Your task to perform on an android device: set the stopwatch Image 0: 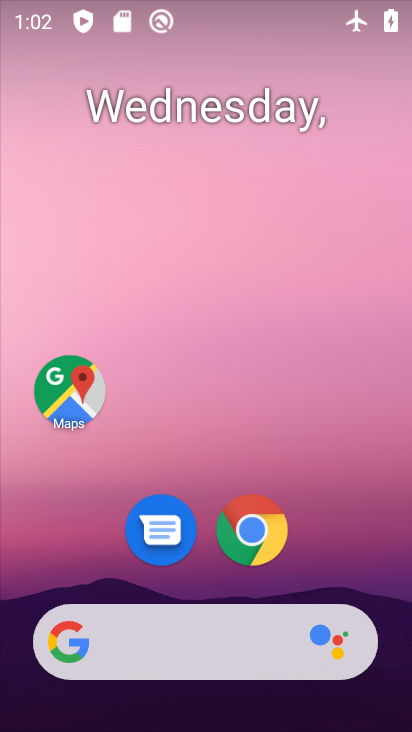
Step 0: drag from (193, 388) to (284, 74)
Your task to perform on an android device: set the stopwatch Image 1: 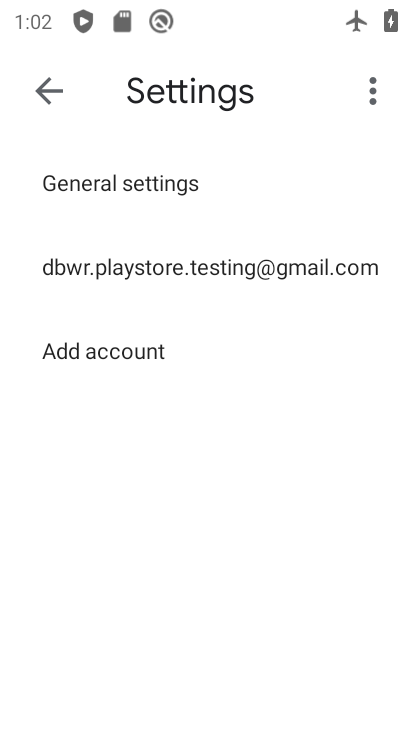
Step 1: drag from (240, 491) to (291, 173)
Your task to perform on an android device: set the stopwatch Image 2: 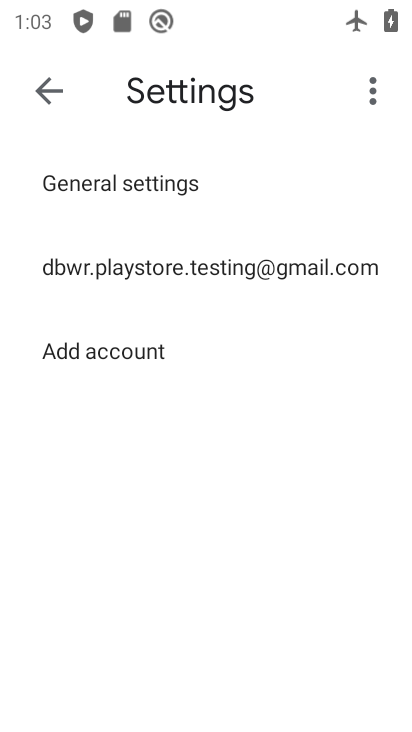
Step 2: press home button
Your task to perform on an android device: set the stopwatch Image 3: 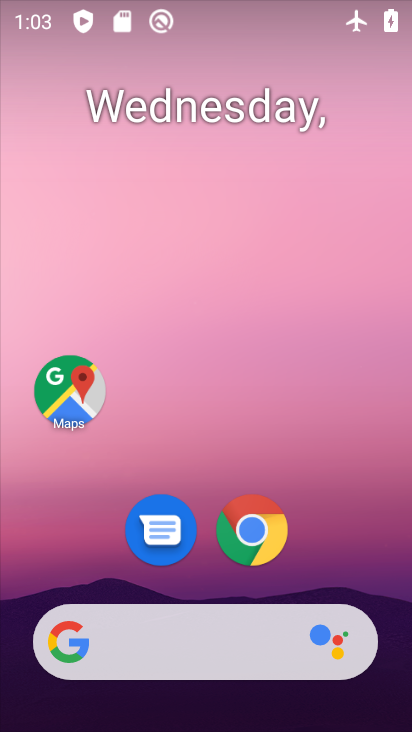
Step 3: drag from (212, 583) to (291, 140)
Your task to perform on an android device: set the stopwatch Image 4: 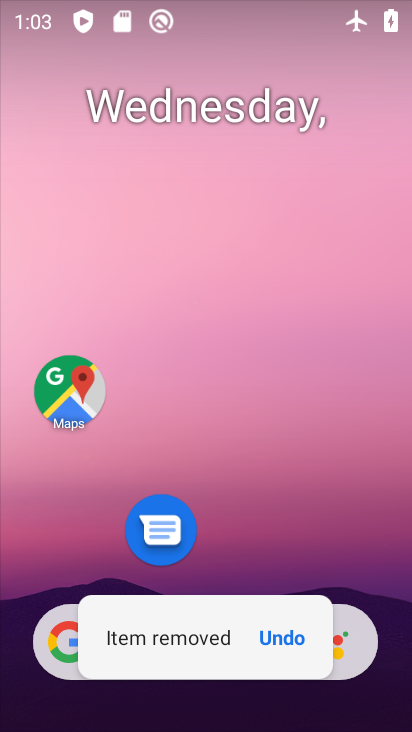
Step 4: drag from (211, 553) to (332, 162)
Your task to perform on an android device: set the stopwatch Image 5: 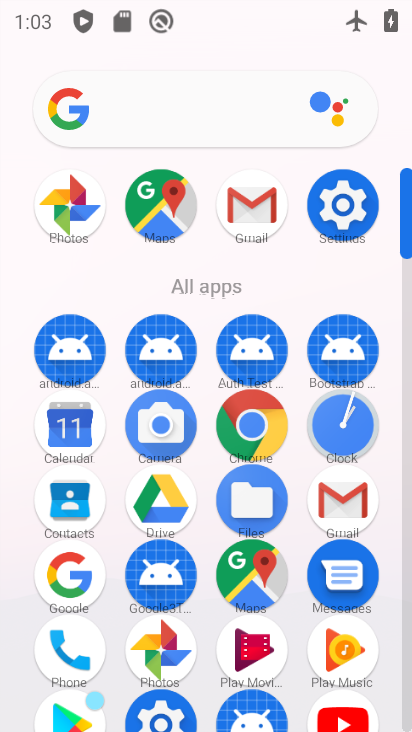
Step 5: click (339, 429)
Your task to perform on an android device: set the stopwatch Image 6: 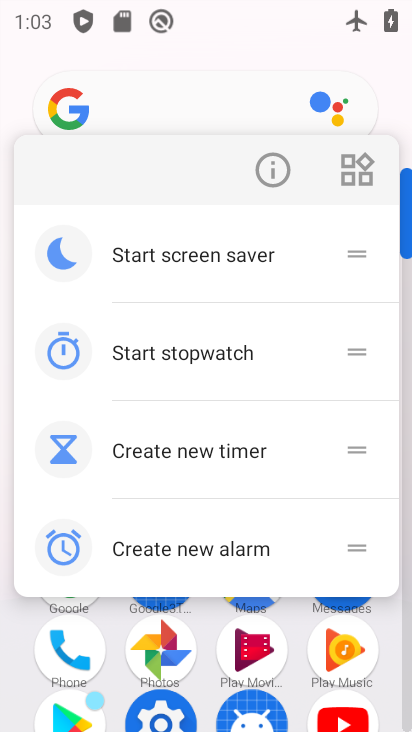
Step 6: click (274, 163)
Your task to perform on an android device: set the stopwatch Image 7: 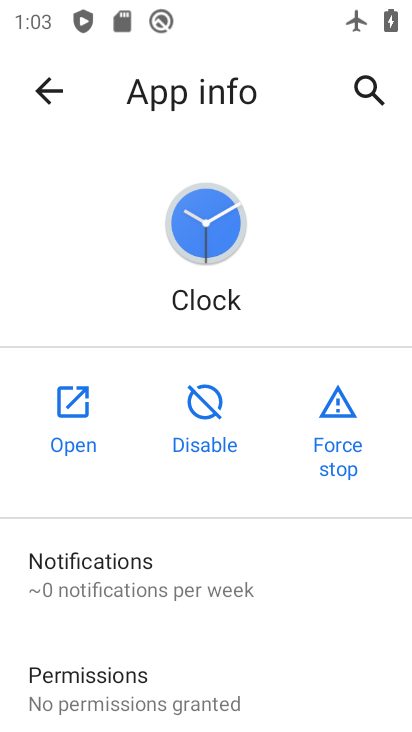
Step 7: click (74, 392)
Your task to perform on an android device: set the stopwatch Image 8: 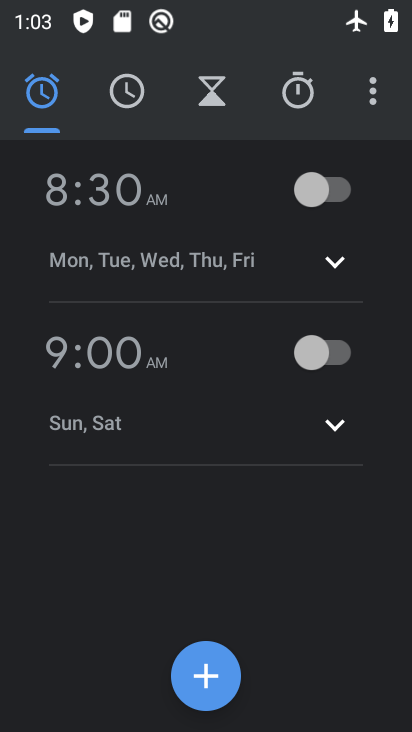
Step 8: click (319, 84)
Your task to perform on an android device: set the stopwatch Image 9: 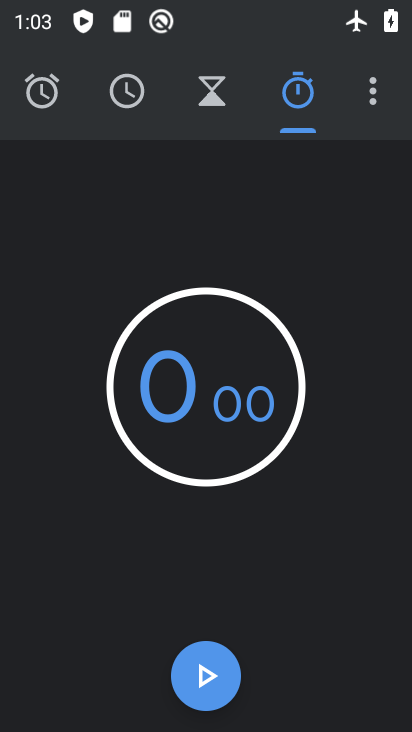
Step 9: drag from (249, 460) to (382, 208)
Your task to perform on an android device: set the stopwatch Image 10: 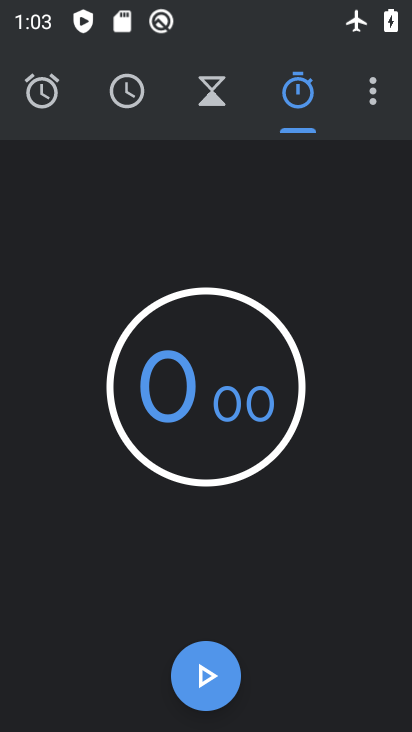
Step 10: click (208, 683)
Your task to perform on an android device: set the stopwatch Image 11: 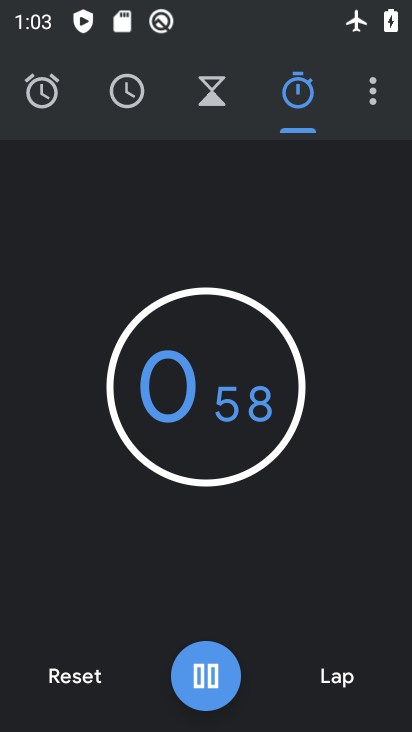
Step 11: task complete